Your task to perform on an android device: turn vacation reply on in the gmail app Image 0: 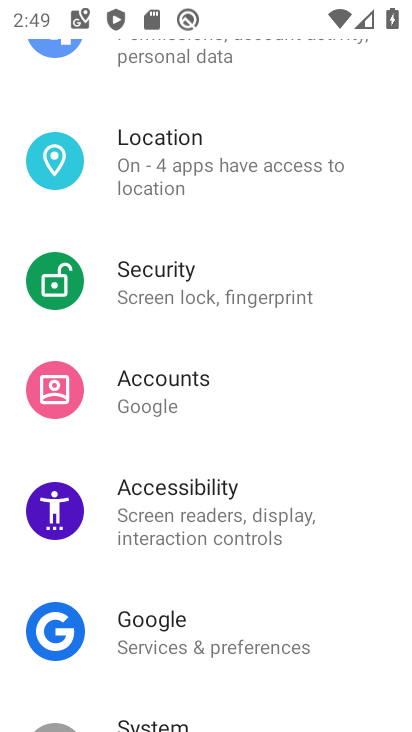
Step 0: press home button
Your task to perform on an android device: turn vacation reply on in the gmail app Image 1: 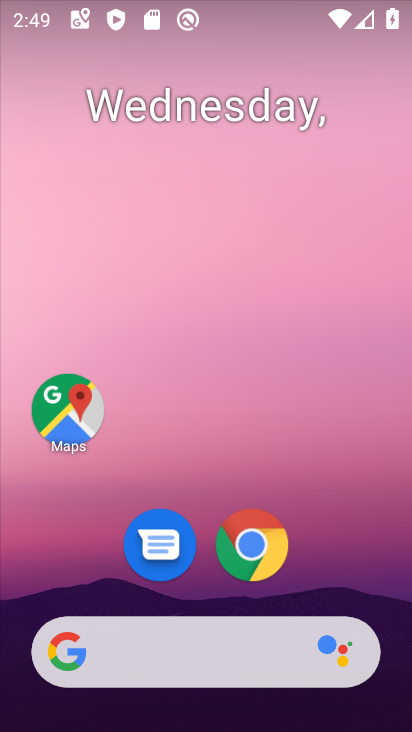
Step 1: drag from (234, 653) to (395, 8)
Your task to perform on an android device: turn vacation reply on in the gmail app Image 2: 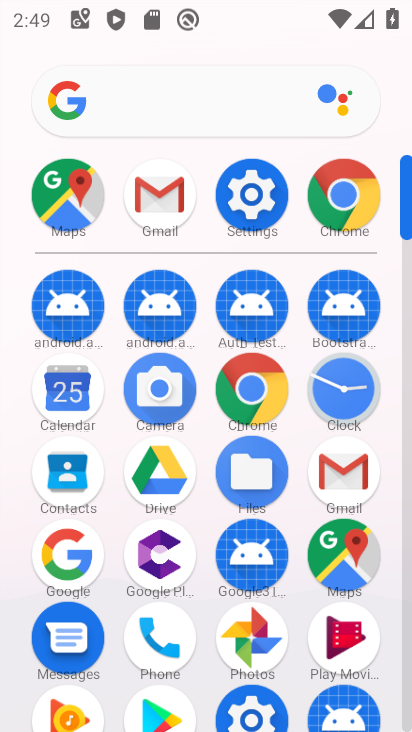
Step 2: click (152, 208)
Your task to perform on an android device: turn vacation reply on in the gmail app Image 3: 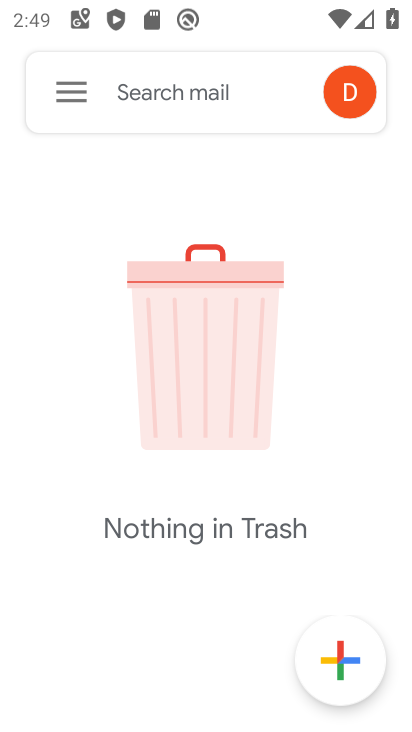
Step 3: click (61, 92)
Your task to perform on an android device: turn vacation reply on in the gmail app Image 4: 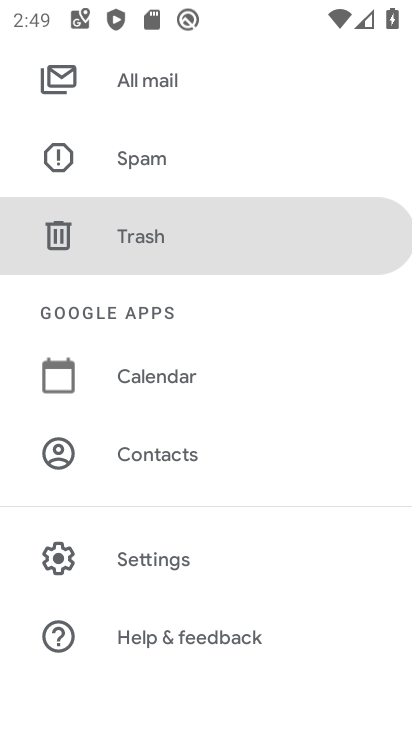
Step 4: click (154, 562)
Your task to perform on an android device: turn vacation reply on in the gmail app Image 5: 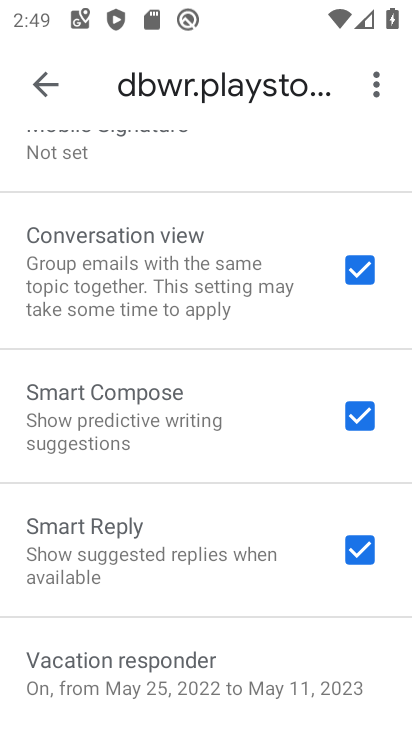
Step 5: click (185, 666)
Your task to perform on an android device: turn vacation reply on in the gmail app Image 6: 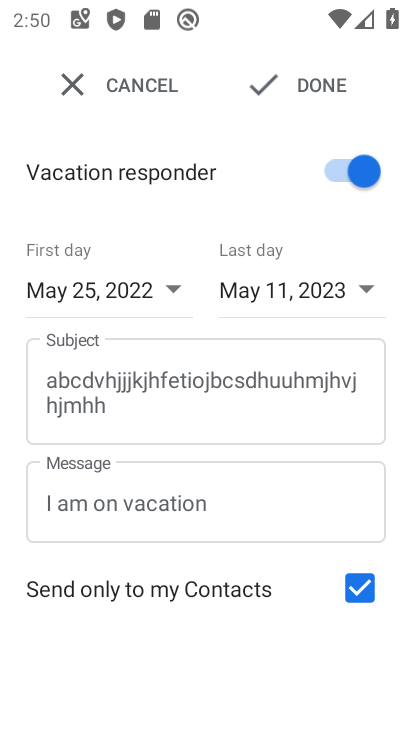
Step 6: task complete